Your task to perform on an android device: Search for seafood restaurants on Google Maps Image 0: 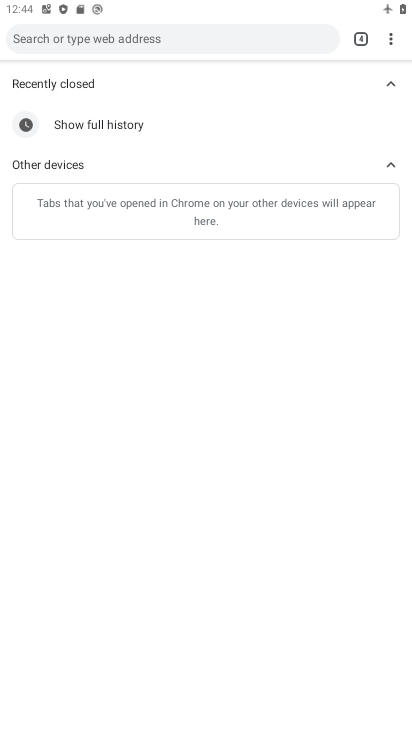
Step 0: press home button
Your task to perform on an android device: Search for seafood restaurants on Google Maps Image 1: 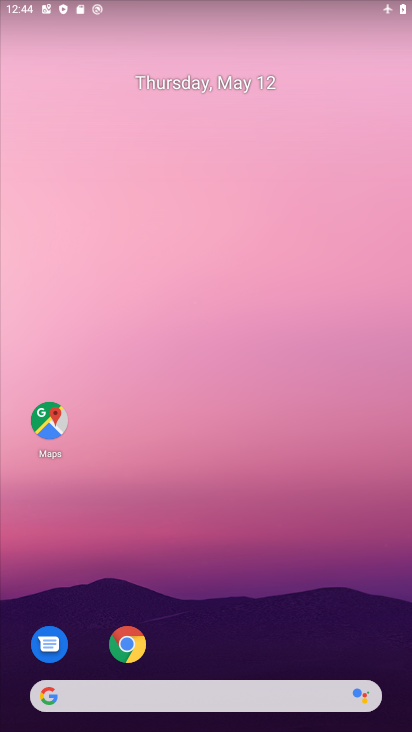
Step 1: click (38, 416)
Your task to perform on an android device: Search for seafood restaurants on Google Maps Image 2: 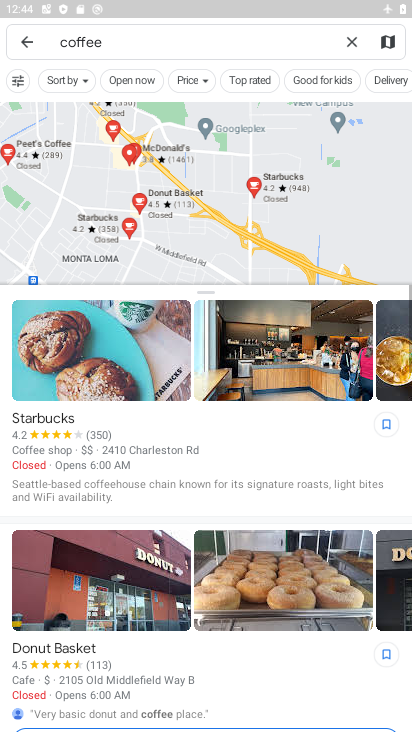
Step 2: click (194, 39)
Your task to perform on an android device: Search for seafood restaurants on Google Maps Image 3: 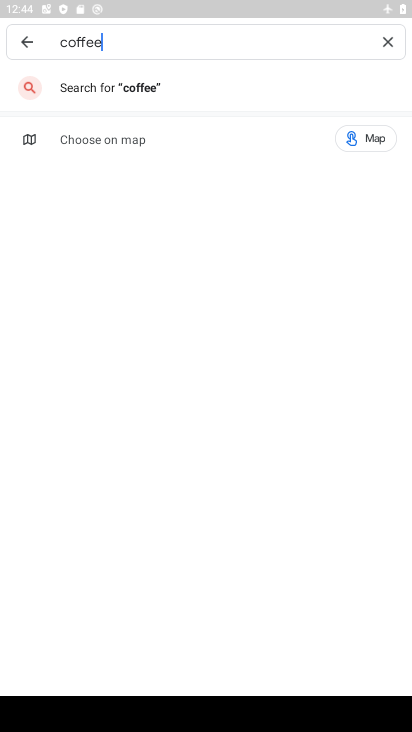
Step 3: click (388, 40)
Your task to perform on an android device: Search for seafood restaurants on Google Maps Image 4: 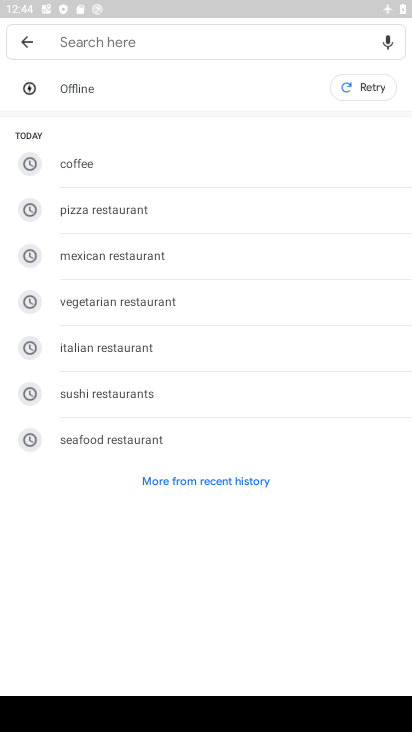
Step 4: click (94, 446)
Your task to perform on an android device: Search for seafood restaurants on Google Maps Image 5: 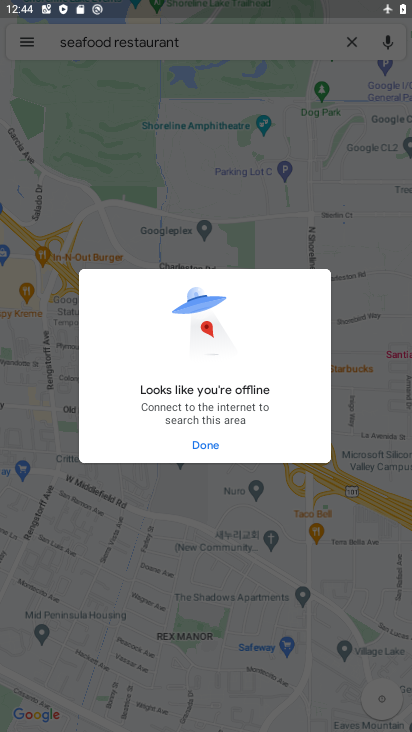
Step 5: task complete